Your task to perform on an android device: check google app version Image 0: 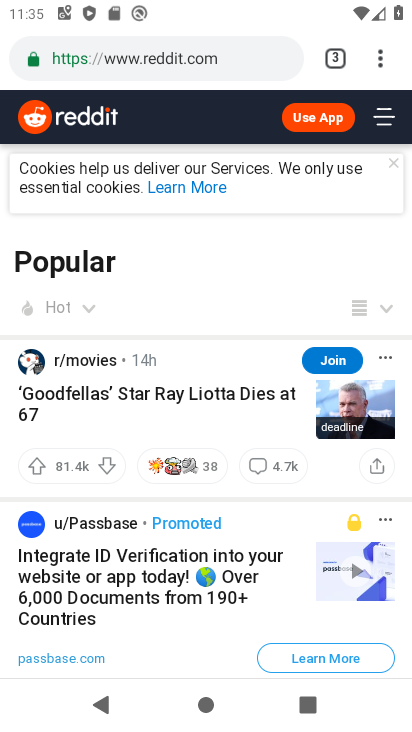
Step 0: press home button
Your task to perform on an android device: check google app version Image 1: 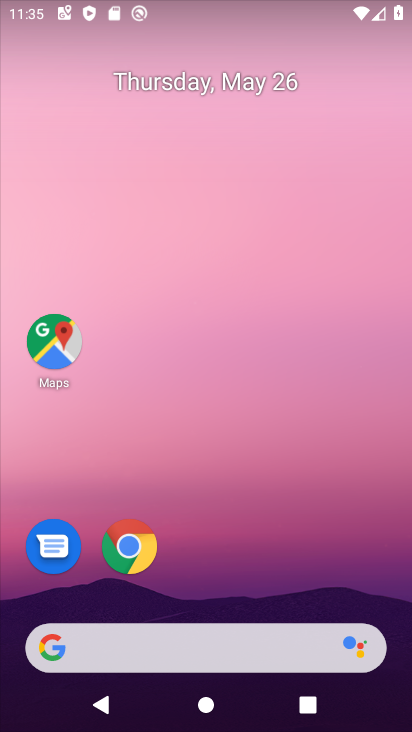
Step 1: drag from (268, 484) to (148, 64)
Your task to perform on an android device: check google app version Image 2: 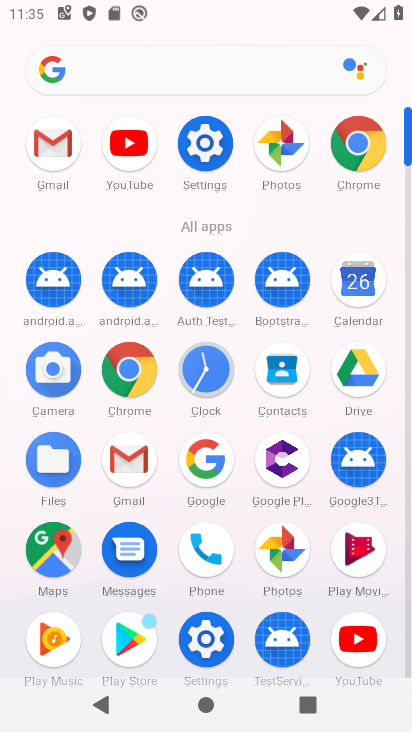
Step 2: click (195, 449)
Your task to perform on an android device: check google app version Image 3: 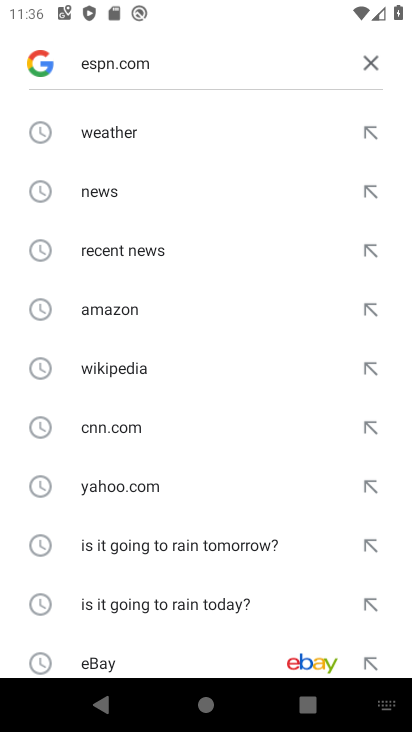
Step 3: click (375, 63)
Your task to perform on an android device: check google app version Image 4: 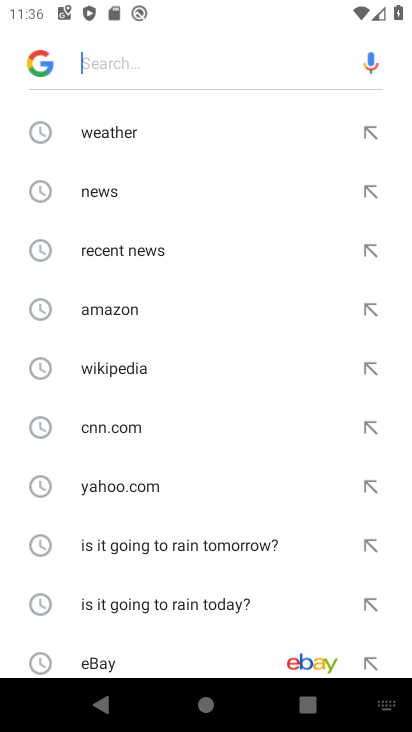
Step 4: click (32, 58)
Your task to perform on an android device: check google app version Image 5: 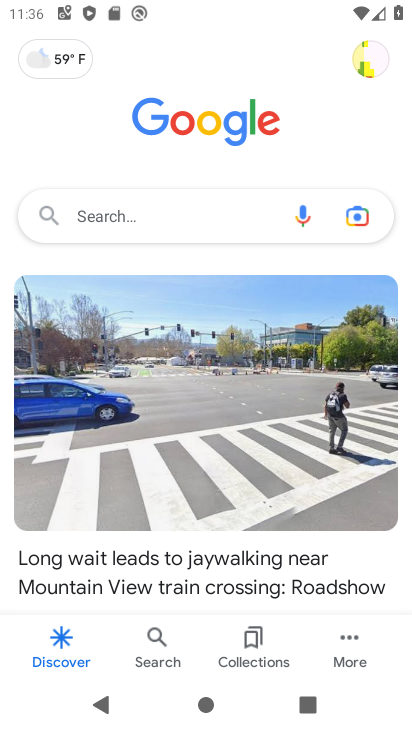
Step 5: click (352, 635)
Your task to perform on an android device: check google app version Image 6: 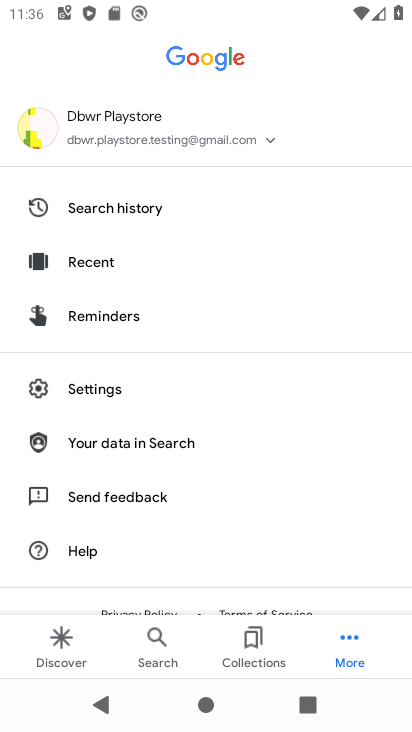
Step 6: click (88, 383)
Your task to perform on an android device: check google app version Image 7: 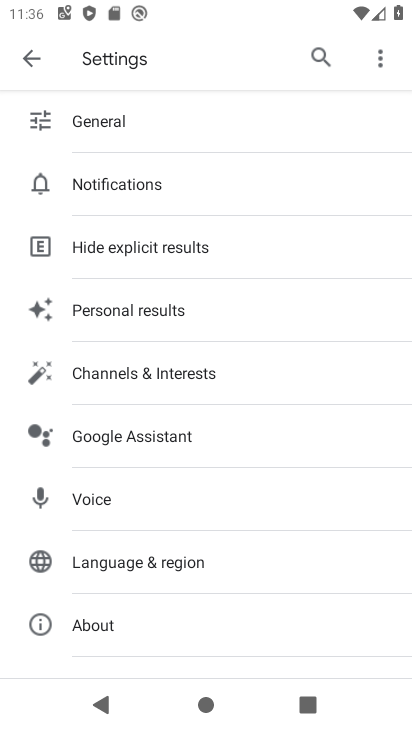
Step 7: click (90, 623)
Your task to perform on an android device: check google app version Image 8: 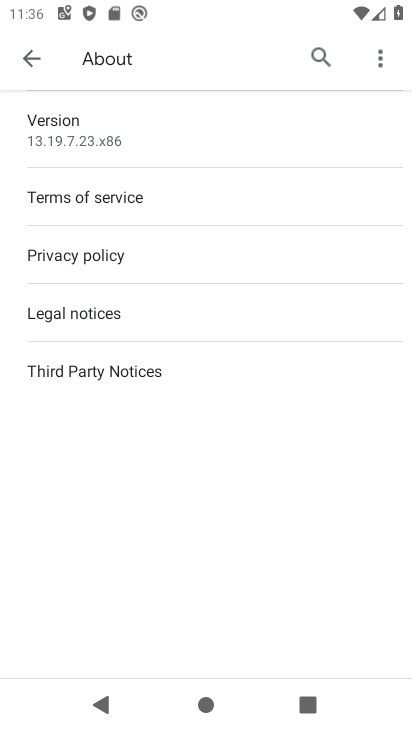
Step 8: task complete